Your task to perform on an android device: open device folders in google photos Image 0: 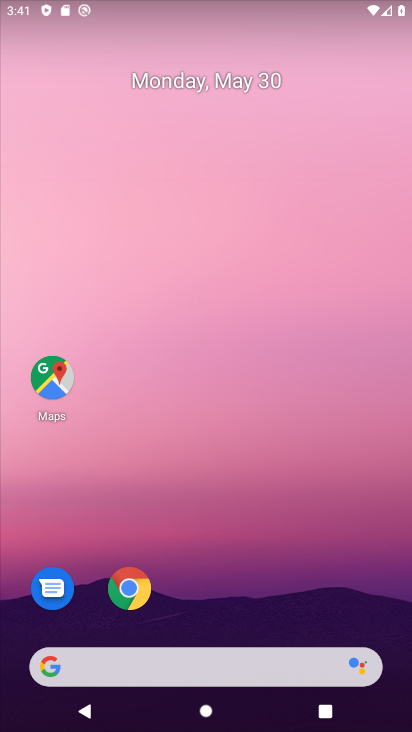
Step 0: drag from (399, 626) to (254, 34)
Your task to perform on an android device: open device folders in google photos Image 1: 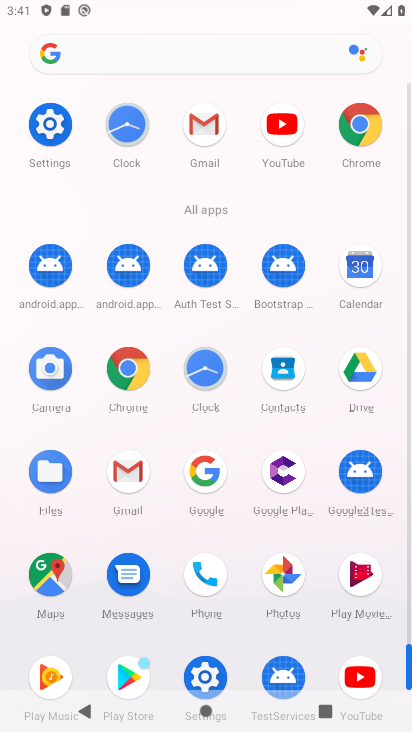
Step 1: click (412, 635)
Your task to perform on an android device: open device folders in google photos Image 2: 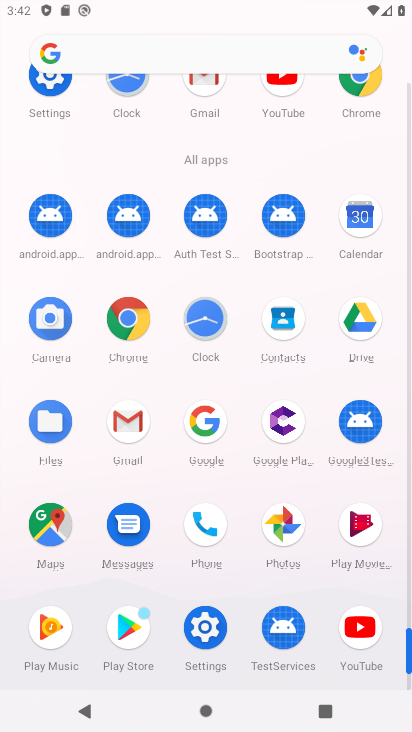
Step 2: click (282, 523)
Your task to perform on an android device: open device folders in google photos Image 3: 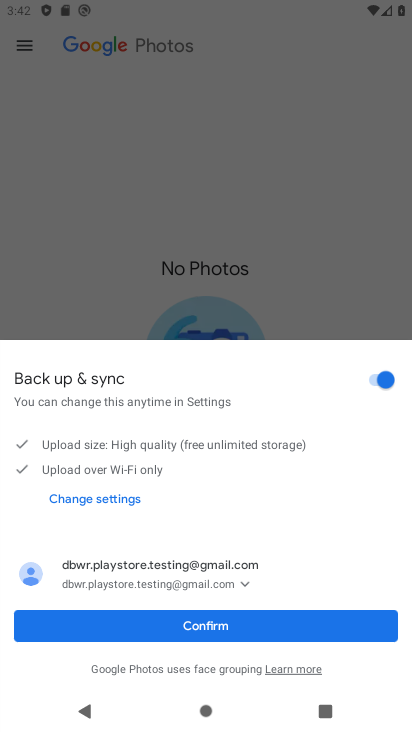
Step 3: click (190, 617)
Your task to perform on an android device: open device folders in google photos Image 4: 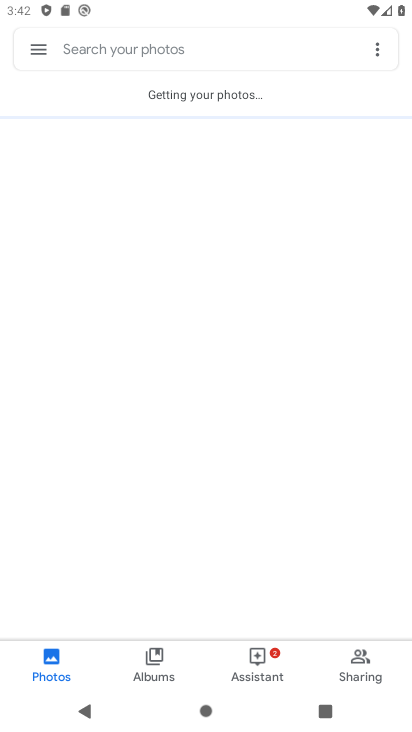
Step 4: click (37, 45)
Your task to perform on an android device: open device folders in google photos Image 5: 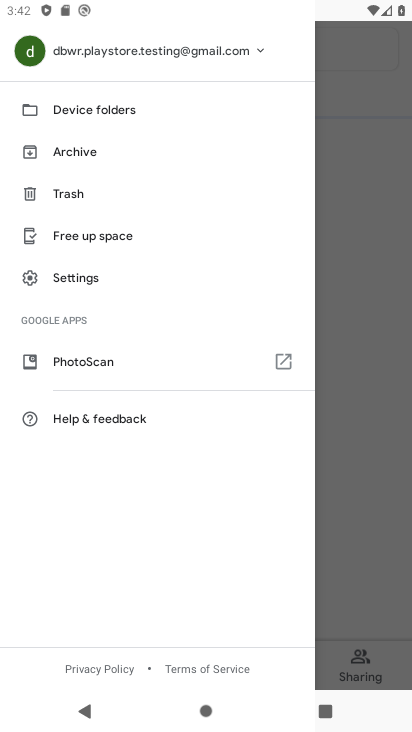
Step 5: click (84, 108)
Your task to perform on an android device: open device folders in google photos Image 6: 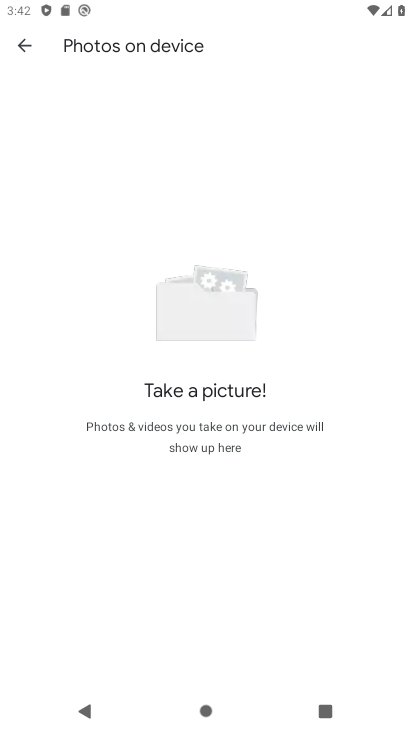
Step 6: task complete